Your task to perform on an android device: Go to Android settings Image 0: 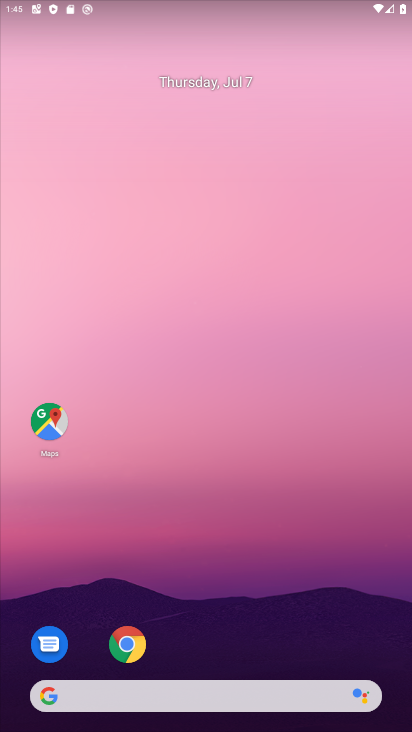
Step 0: drag from (157, 687) to (167, 33)
Your task to perform on an android device: Go to Android settings Image 1: 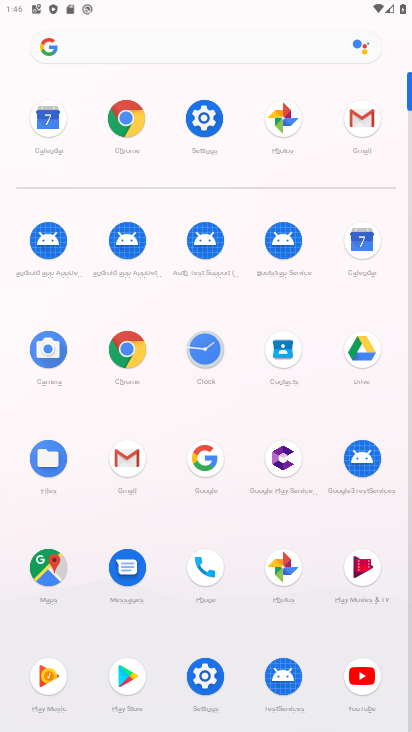
Step 1: click (209, 125)
Your task to perform on an android device: Go to Android settings Image 2: 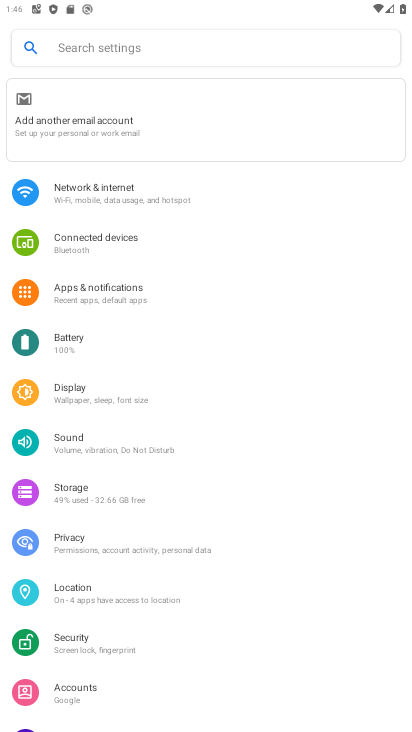
Step 2: task complete